Your task to perform on an android device: turn on improve location accuracy Image 0: 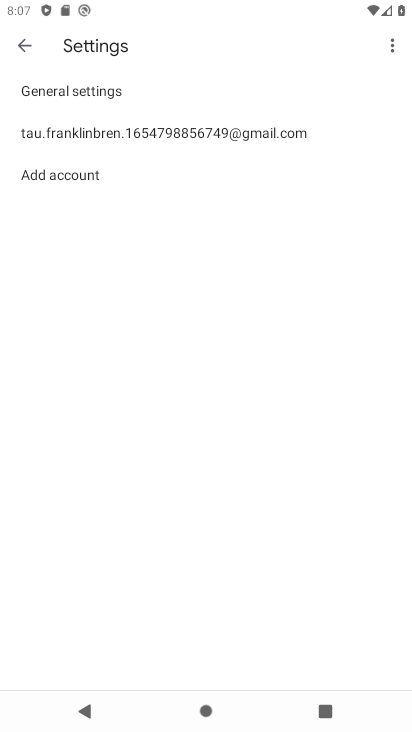
Step 0: press home button
Your task to perform on an android device: turn on improve location accuracy Image 1: 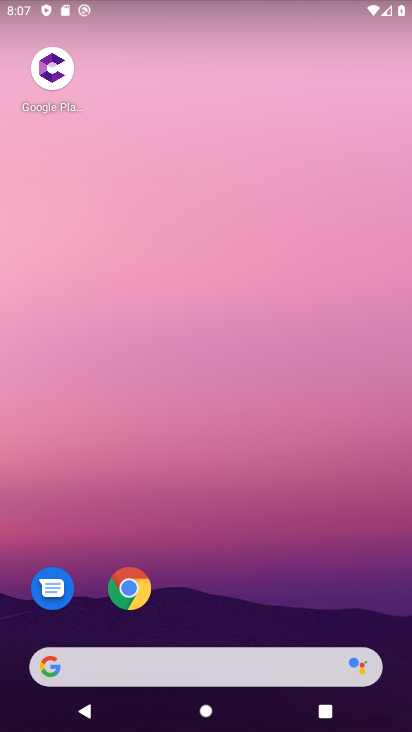
Step 1: drag from (246, 636) to (244, 31)
Your task to perform on an android device: turn on improve location accuracy Image 2: 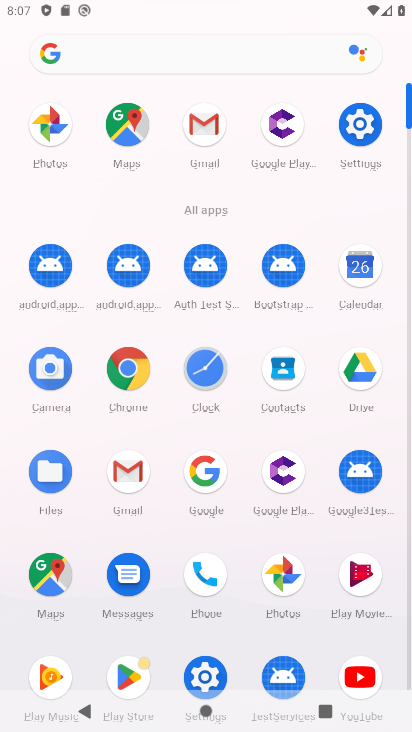
Step 2: click (355, 127)
Your task to perform on an android device: turn on improve location accuracy Image 3: 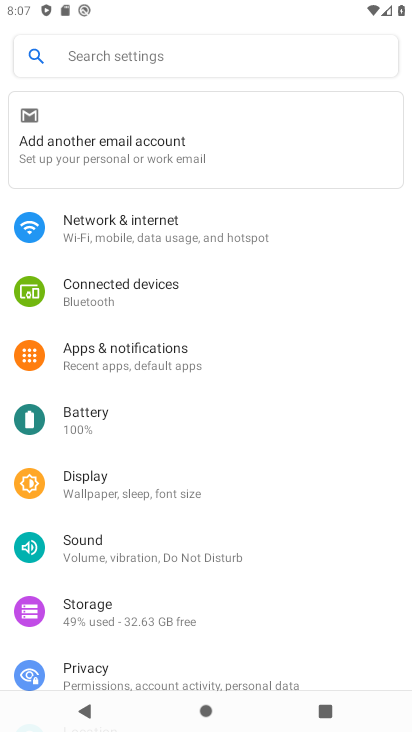
Step 3: drag from (166, 549) to (175, 229)
Your task to perform on an android device: turn on improve location accuracy Image 4: 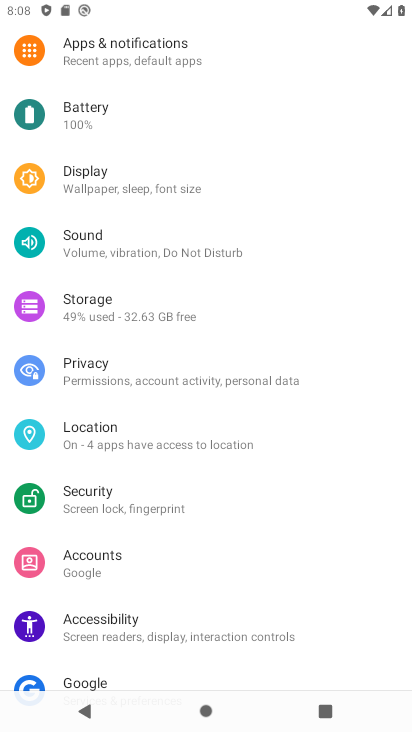
Step 4: click (108, 443)
Your task to perform on an android device: turn on improve location accuracy Image 5: 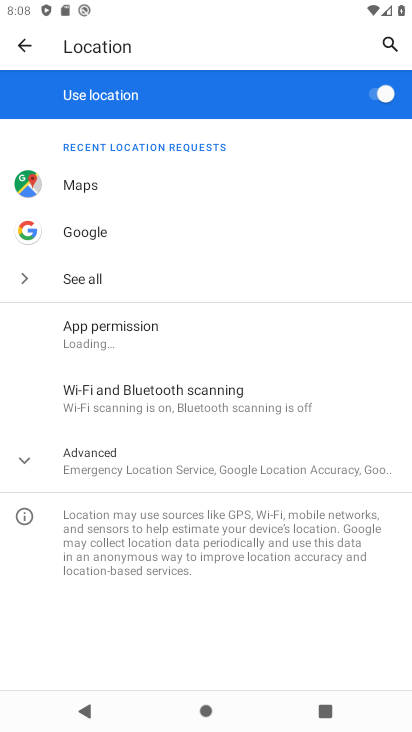
Step 5: click (21, 463)
Your task to perform on an android device: turn on improve location accuracy Image 6: 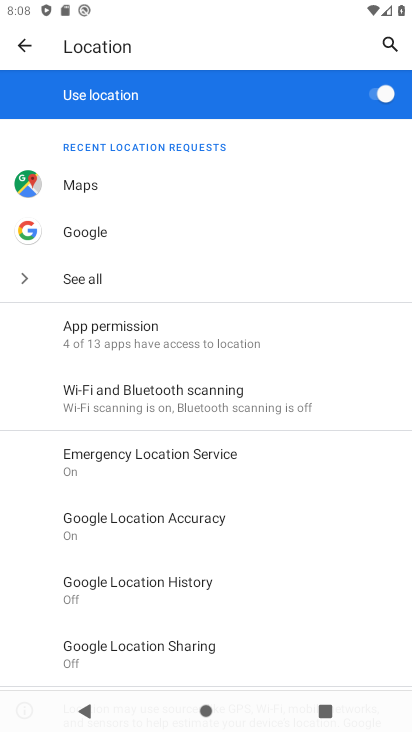
Step 6: click (131, 524)
Your task to perform on an android device: turn on improve location accuracy Image 7: 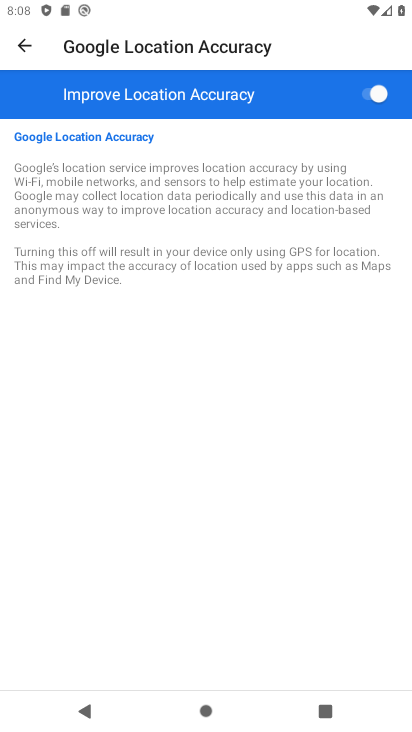
Step 7: task complete